Your task to perform on an android device: toggle javascript in the chrome app Image 0: 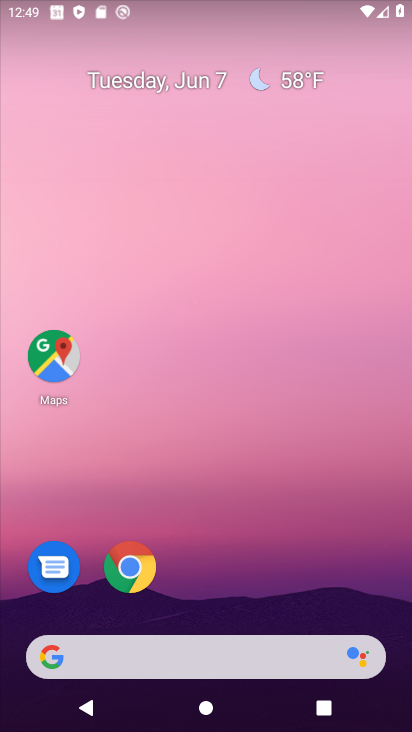
Step 0: drag from (391, 666) to (388, 101)
Your task to perform on an android device: toggle javascript in the chrome app Image 1: 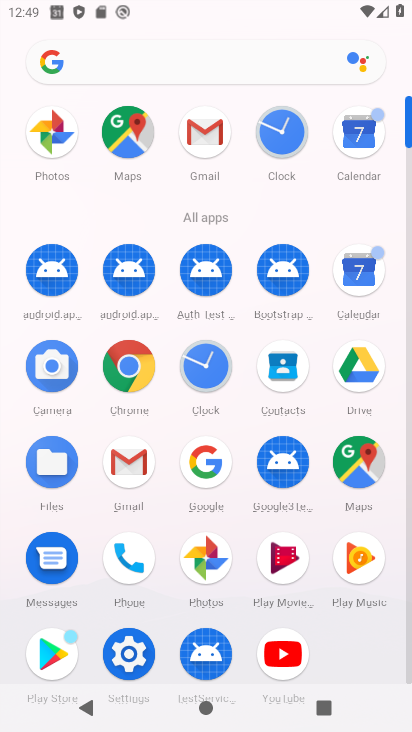
Step 1: click (126, 649)
Your task to perform on an android device: toggle javascript in the chrome app Image 2: 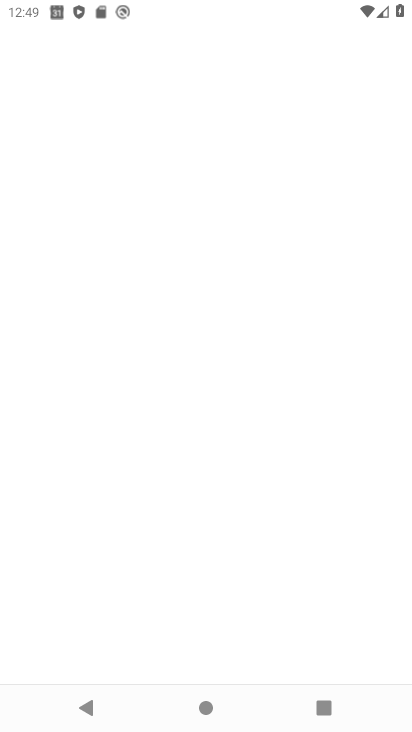
Step 2: press back button
Your task to perform on an android device: toggle javascript in the chrome app Image 3: 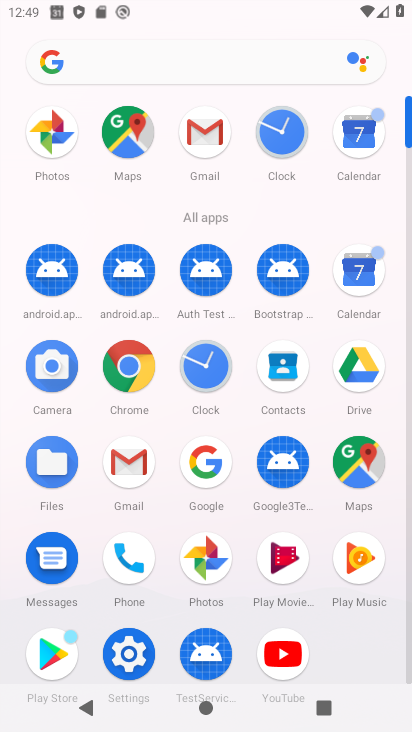
Step 3: click (129, 356)
Your task to perform on an android device: toggle javascript in the chrome app Image 4: 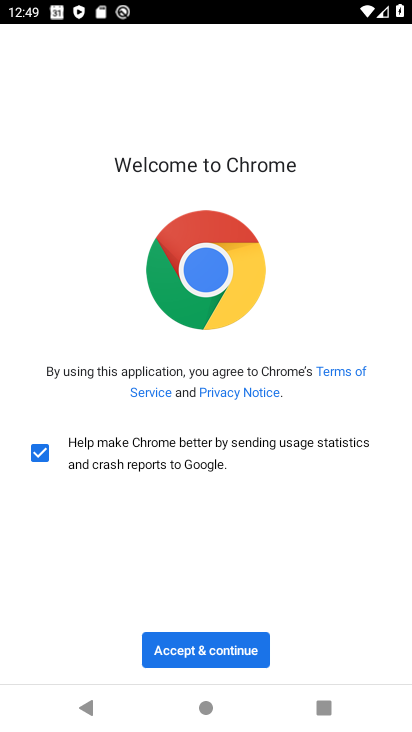
Step 4: click (248, 651)
Your task to perform on an android device: toggle javascript in the chrome app Image 5: 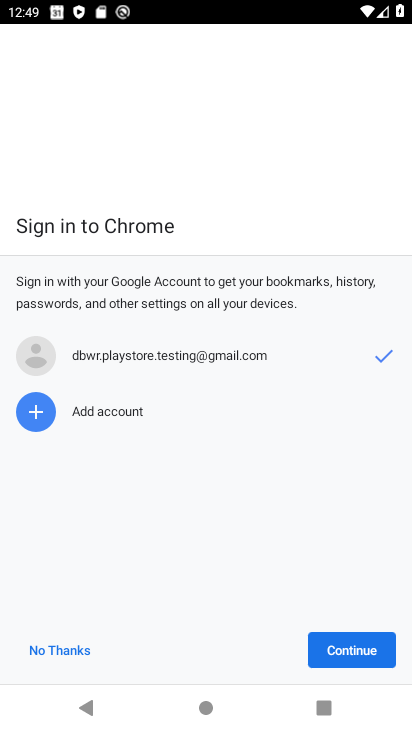
Step 5: click (362, 642)
Your task to perform on an android device: toggle javascript in the chrome app Image 6: 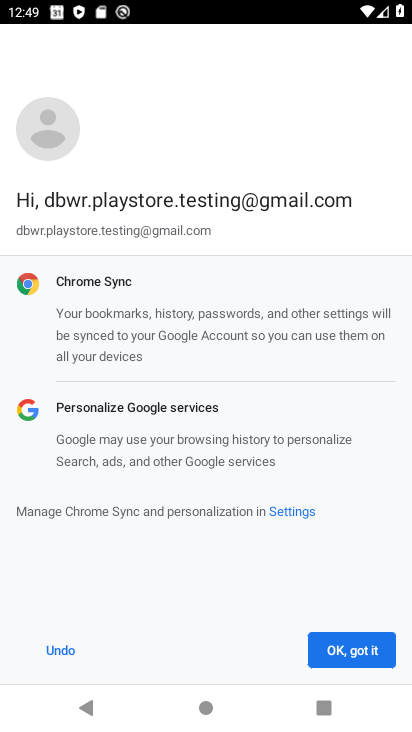
Step 6: click (362, 642)
Your task to perform on an android device: toggle javascript in the chrome app Image 7: 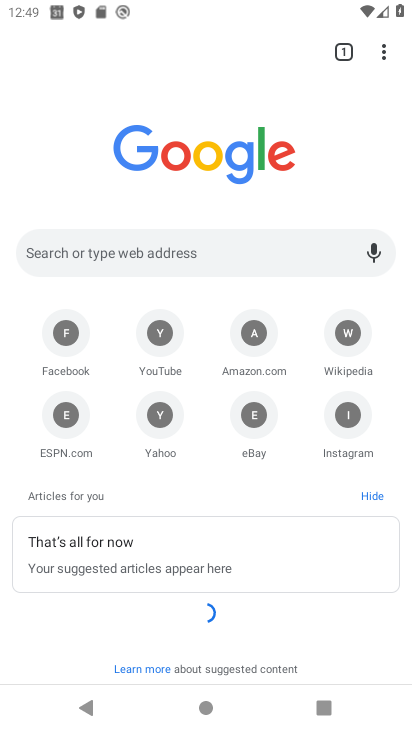
Step 7: click (385, 49)
Your task to perform on an android device: toggle javascript in the chrome app Image 8: 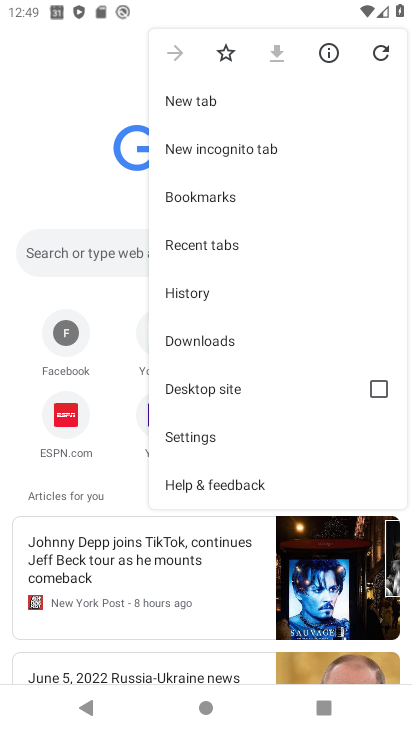
Step 8: click (187, 430)
Your task to perform on an android device: toggle javascript in the chrome app Image 9: 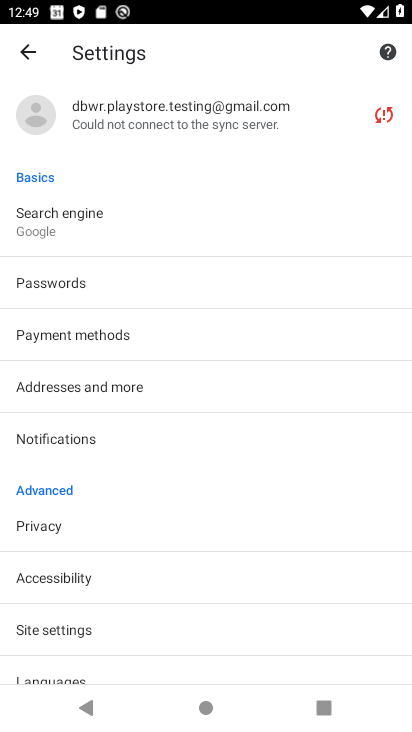
Step 9: click (41, 628)
Your task to perform on an android device: toggle javascript in the chrome app Image 10: 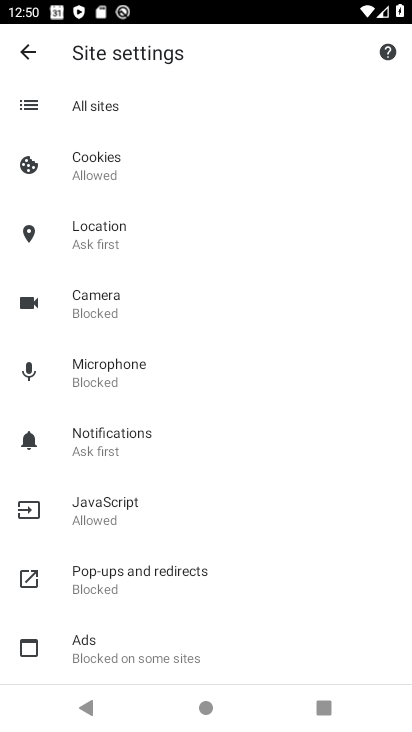
Step 10: click (95, 507)
Your task to perform on an android device: toggle javascript in the chrome app Image 11: 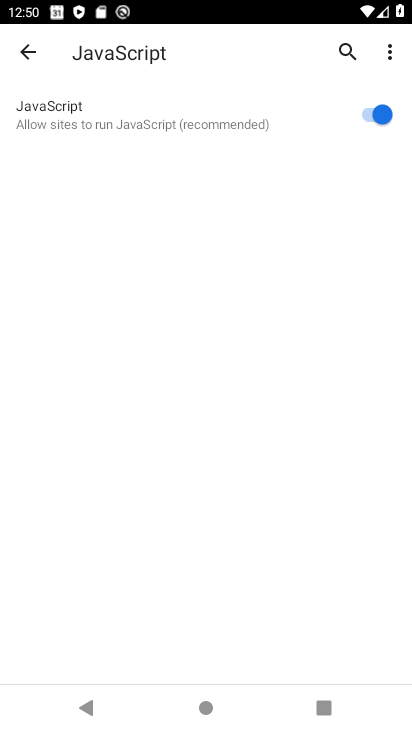
Step 11: click (360, 119)
Your task to perform on an android device: toggle javascript in the chrome app Image 12: 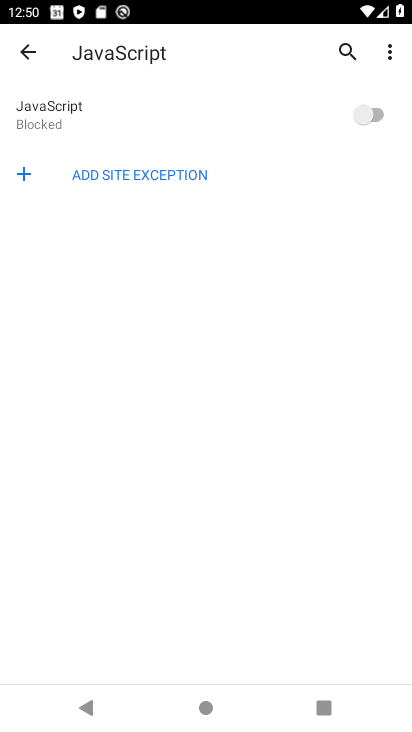
Step 12: task complete